Your task to perform on an android device: turn pop-ups off in chrome Image 0: 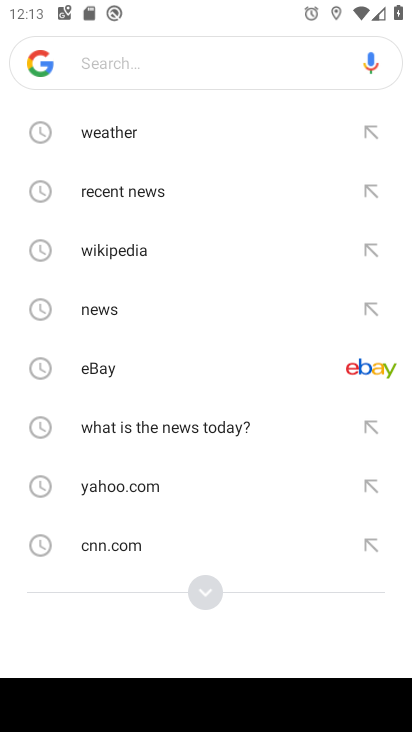
Step 0: press home button
Your task to perform on an android device: turn pop-ups off in chrome Image 1: 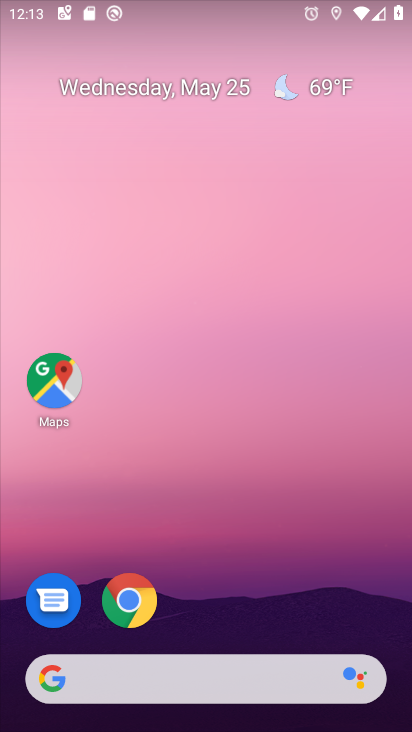
Step 1: drag from (372, 622) to (336, 197)
Your task to perform on an android device: turn pop-ups off in chrome Image 2: 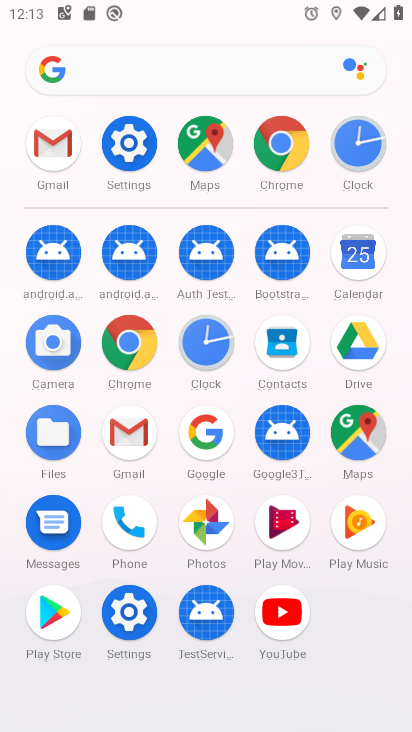
Step 2: click (144, 358)
Your task to perform on an android device: turn pop-ups off in chrome Image 3: 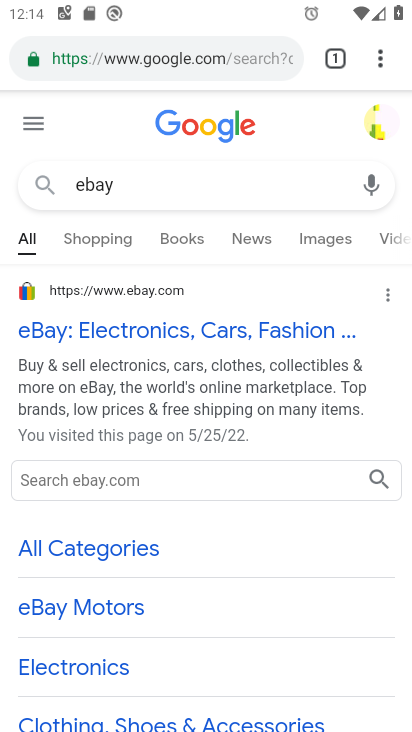
Step 3: click (383, 61)
Your task to perform on an android device: turn pop-ups off in chrome Image 4: 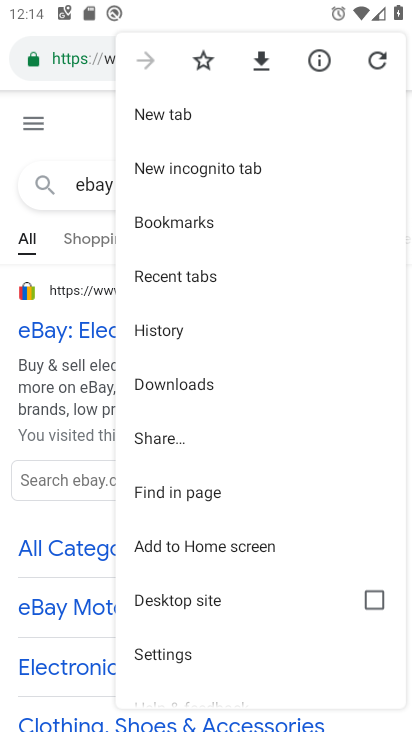
Step 4: click (213, 658)
Your task to perform on an android device: turn pop-ups off in chrome Image 5: 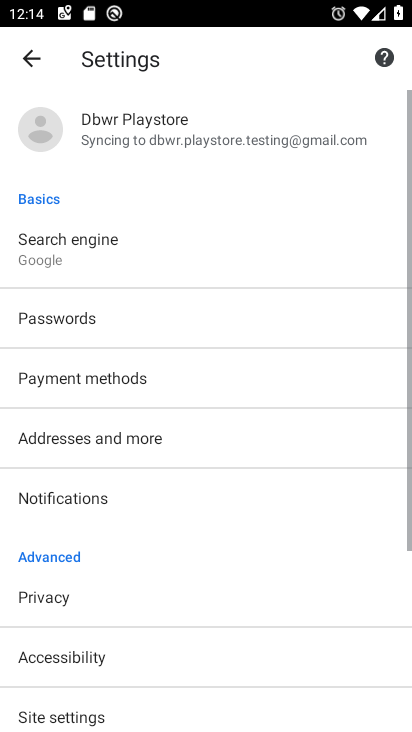
Step 5: drag from (212, 658) to (238, 559)
Your task to perform on an android device: turn pop-ups off in chrome Image 6: 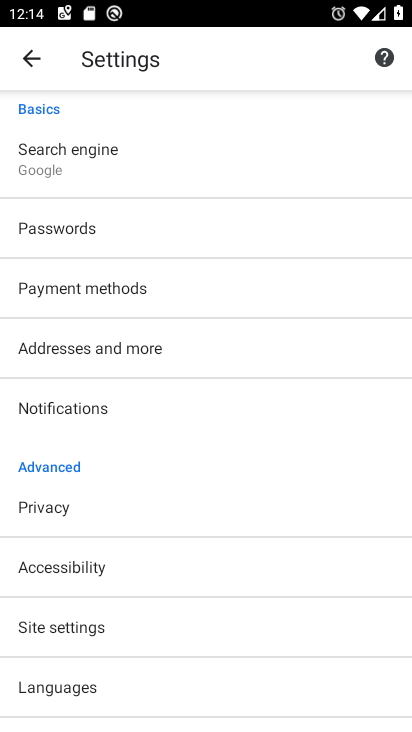
Step 6: drag from (267, 661) to (271, 593)
Your task to perform on an android device: turn pop-ups off in chrome Image 7: 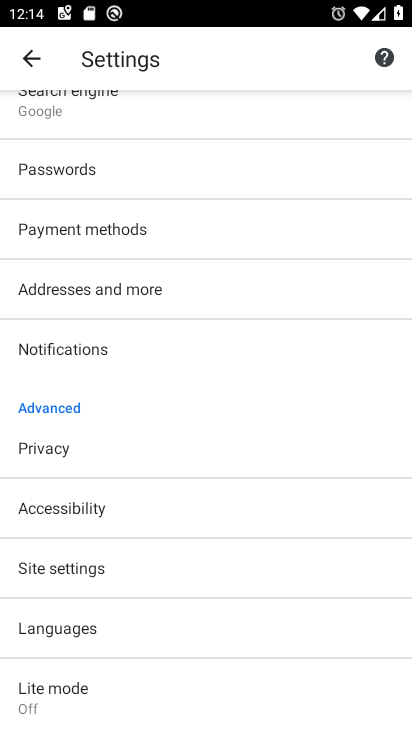
Step 7: drag from (288, 673) to (299, 603)
Your task to perform on an android device: turn pop-ups off in chrome Image 8: 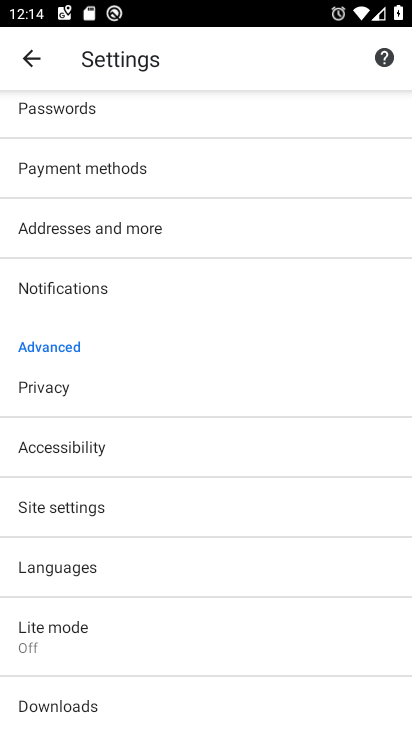
Step 8: drag from (297, 677) to (310, 607)
Your task to perform on an android device: turn pop-ups off in chrome Image 9: 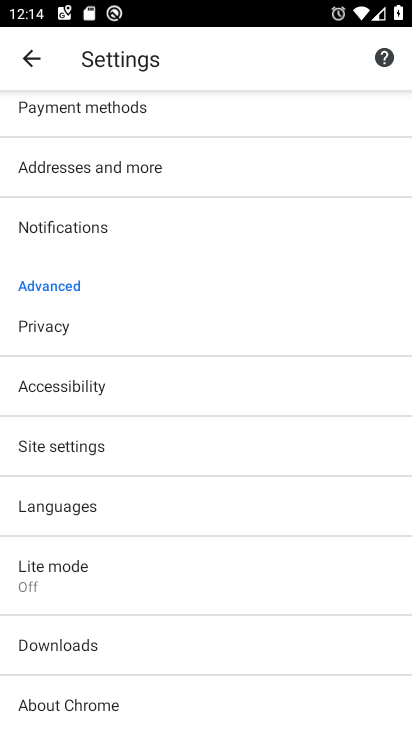
Step 9: drag from (330, 673) to (349, 594)
Your task to perform on an android device: turn pop-ups off in chrome Image 10: 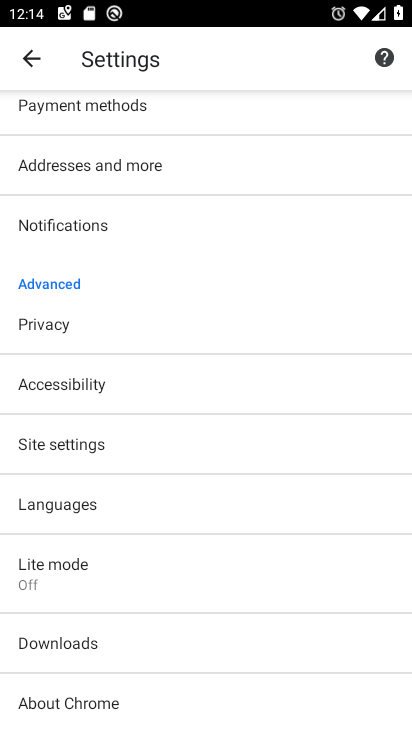
Step 10: drag from (348, 325) to (354, 384)
Your task to perform on an android device: turn pop-ups off in chrome Image 11: 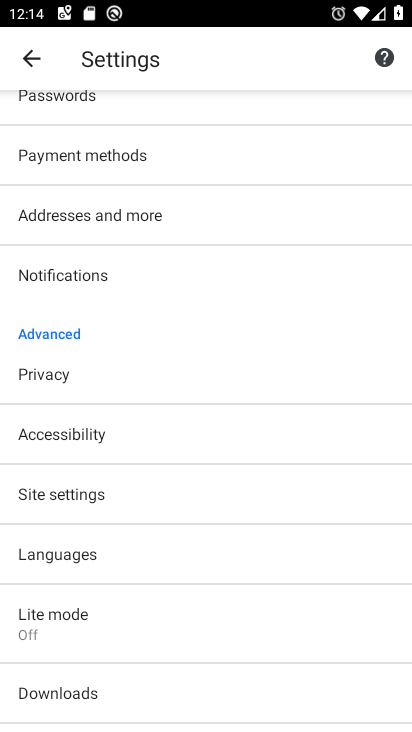
Step 11: drag from (341, 305) to (324, 432)
Your task to perform on an android device: turn pop-ups off in chrome Image 12: 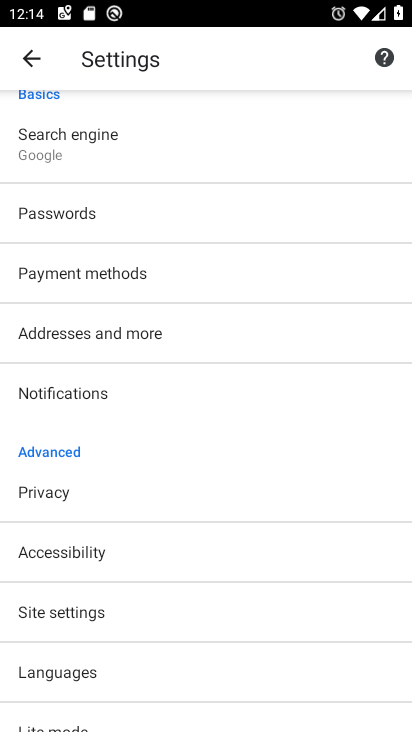
Step 12: drag from (324, 329) to (323, 482)
Your task to perform on an android device: turn pop-ups off in chrome Image 13: 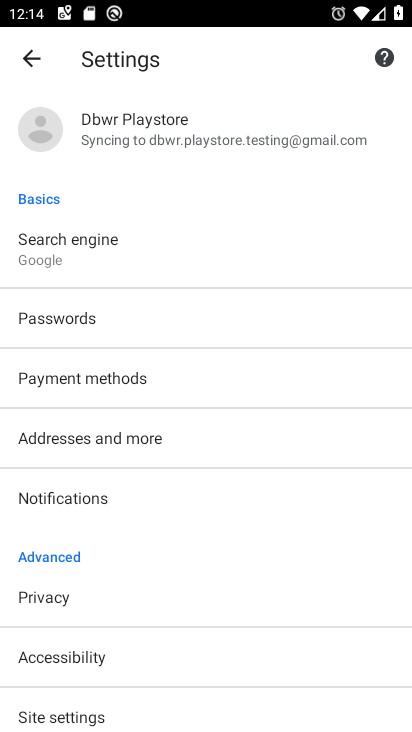
Step 13: drag from (335, 537) to (363, 438)
Your task to perform on an android device: turn pop-ups off in chrome Image 14: 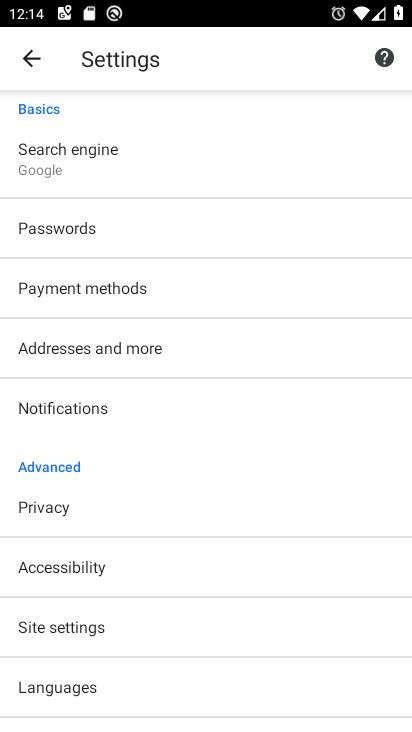
Step 14: drag from (346, 595) to (361, 481)
Your task to perform on an android device: turn pop-ups off in chrome Image 15: 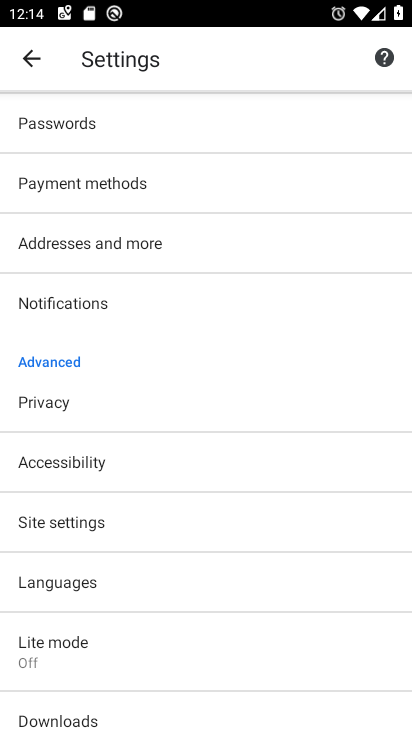
Step 15: click (349, 524)
Your task to perform on an android device: turn pop-ups off in chrome Image 16: 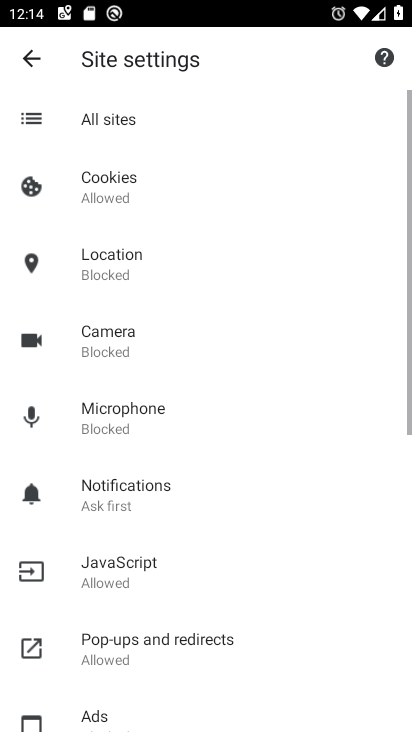
Step 16: drag from (351, 552) to (335, 469)
Your task to perform on an android device: turn pop-ups off in chrome Image 17: 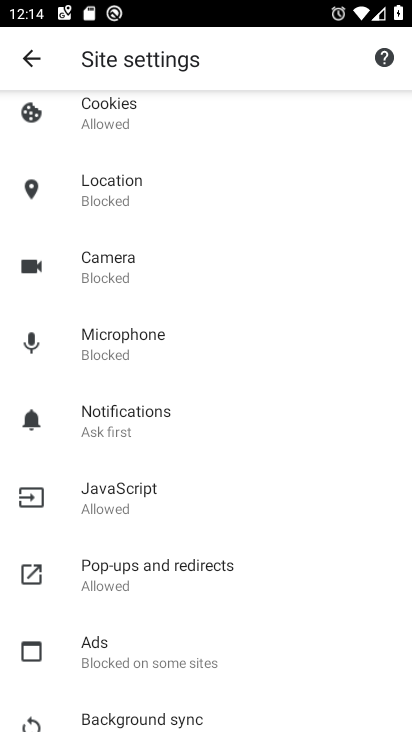
Step 17: drag from (348, 559) to (339, 450)
Your task to perform on an android device: turn pop-ups off in chrome Image 18: 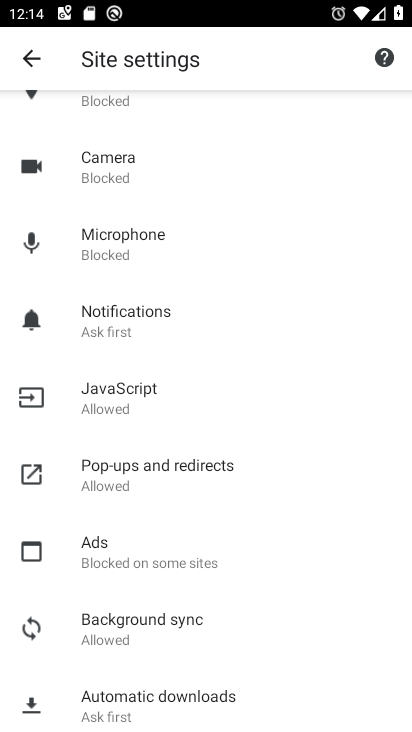
Step 18: drag from (348, 598) to (346, 477)
Your task to perform on an android device: turn pop-ups off in chrome Image 19: 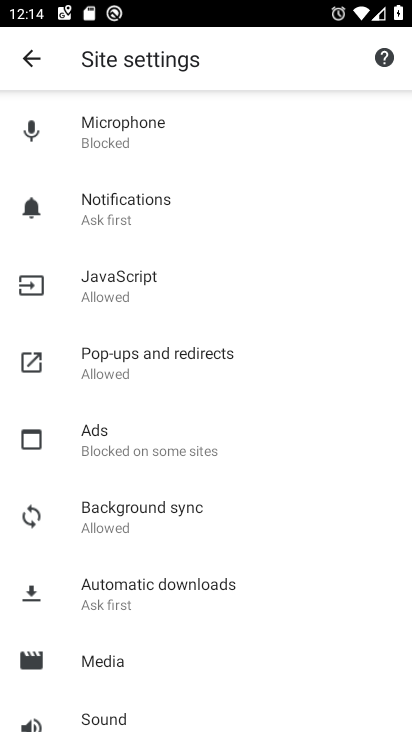
Step 19: click (213, 359)
Your task to perform on an android device: turn pop-ups off in chrome Image 20: 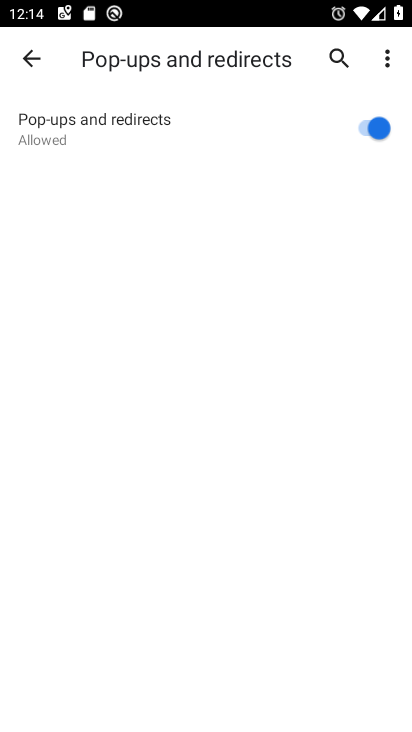
Step 20: click (371, 124)
Your task to perform on an android device: turn pop-ups off in chrome Image 21: 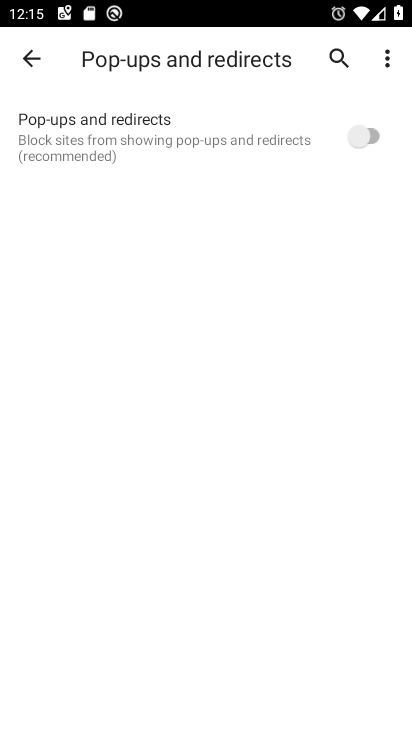
Step 21: task complete